Your task to perform on an android device: change keyboard looks Image 0: 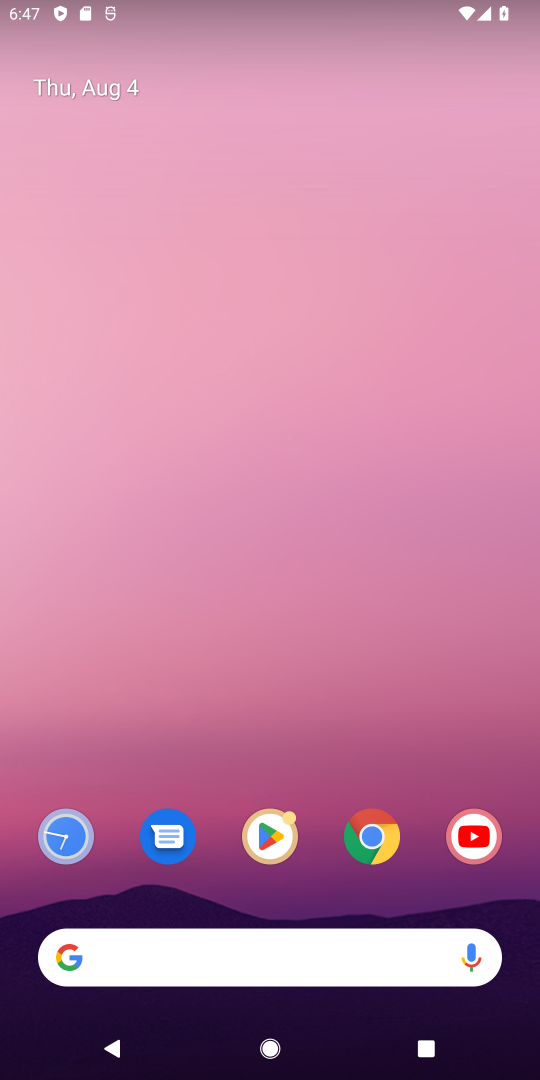
Step 0: drag from (214, 800) to (248, 354)
Your task to perform on an android device: change keyboard looks Image 1: 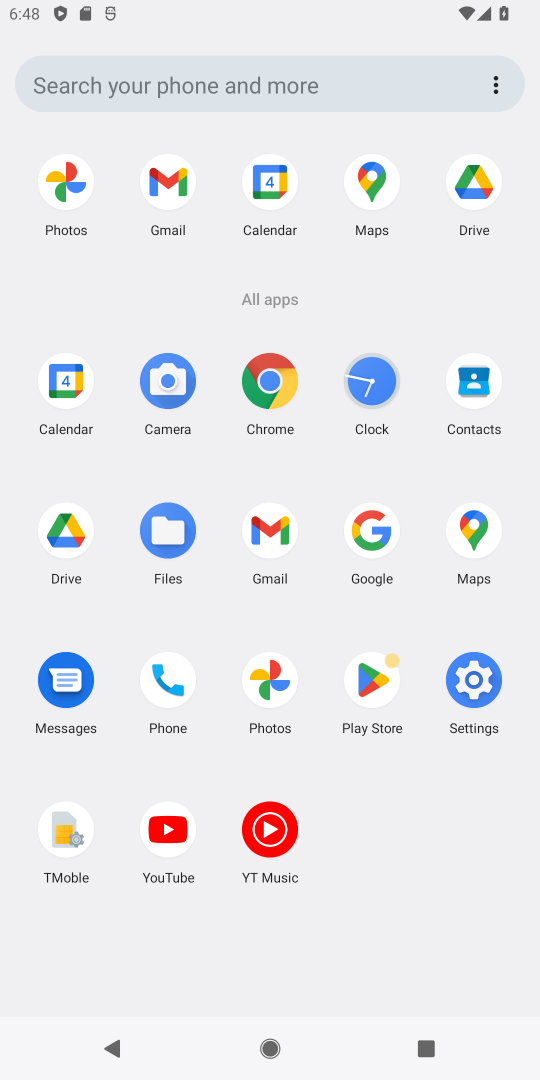
Step 1: click (470, 689)
Your task to perform on an android device: change keyboard looks Image 2: 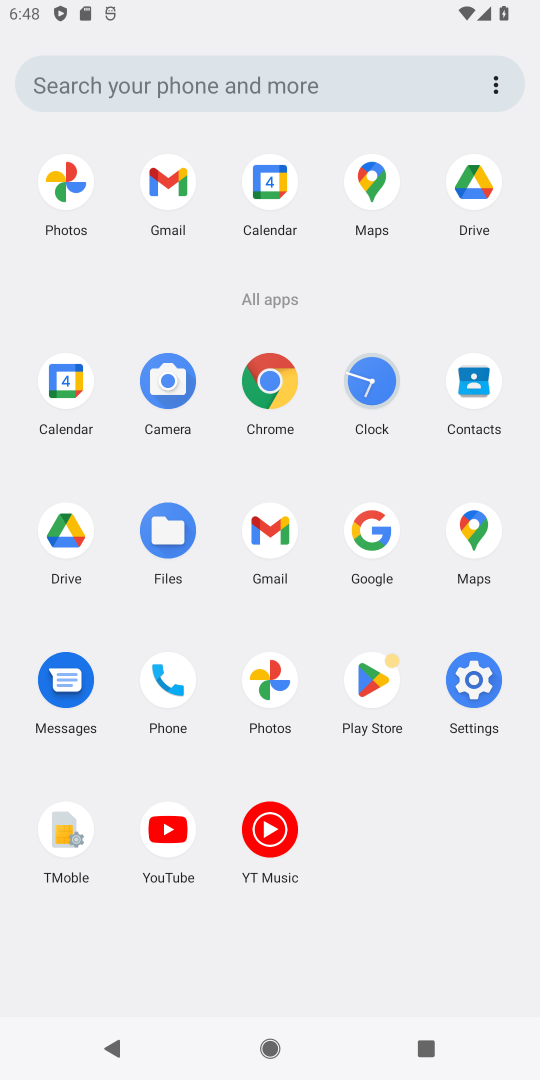
Step 2: click (467, 698)
Your task to perform on an android device: change keyboard looks Image 3: 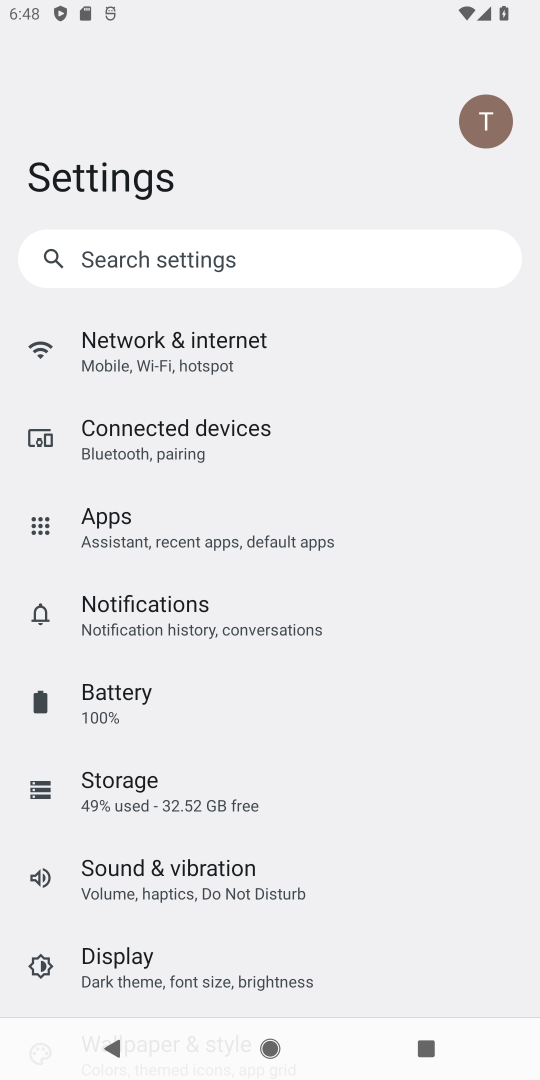
Step 3: drag from (215, 943) to (261, 142)
Your task to perform on an android device: change keyboard looks Image 4: 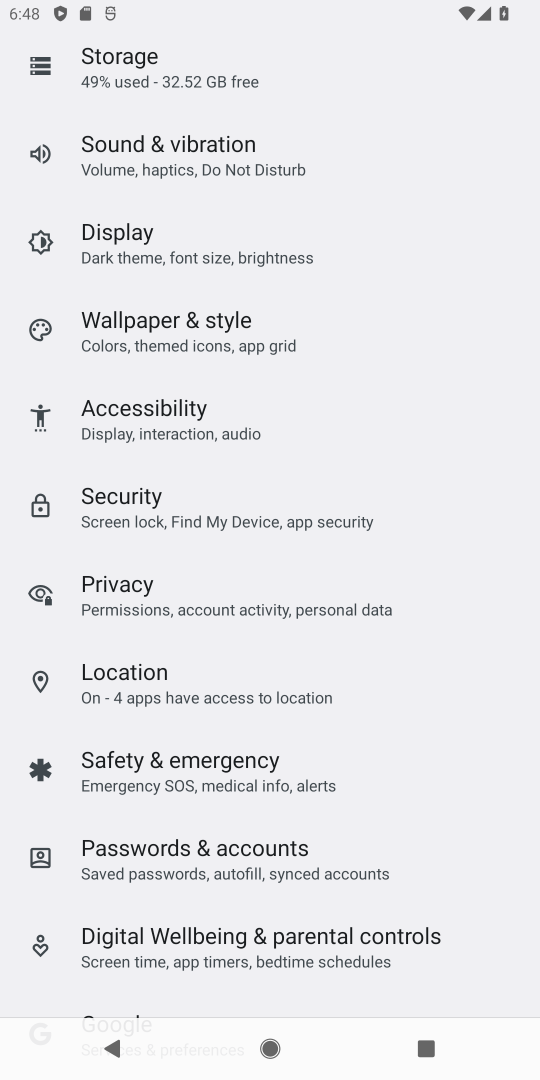
Step 4: drag from (265, 599) to (328, 6)
Your task to perform on an android device: change keyboard looks Image 5: 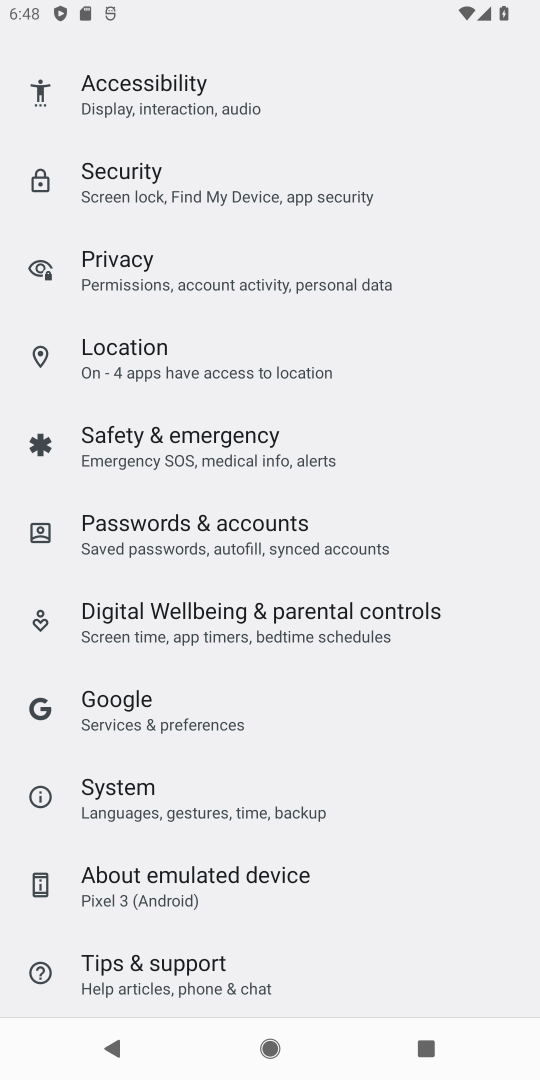
Step 5: drag from (227, 870) to (318, 162)
Your task to perform on an android device: change keyboard looks Image 6: 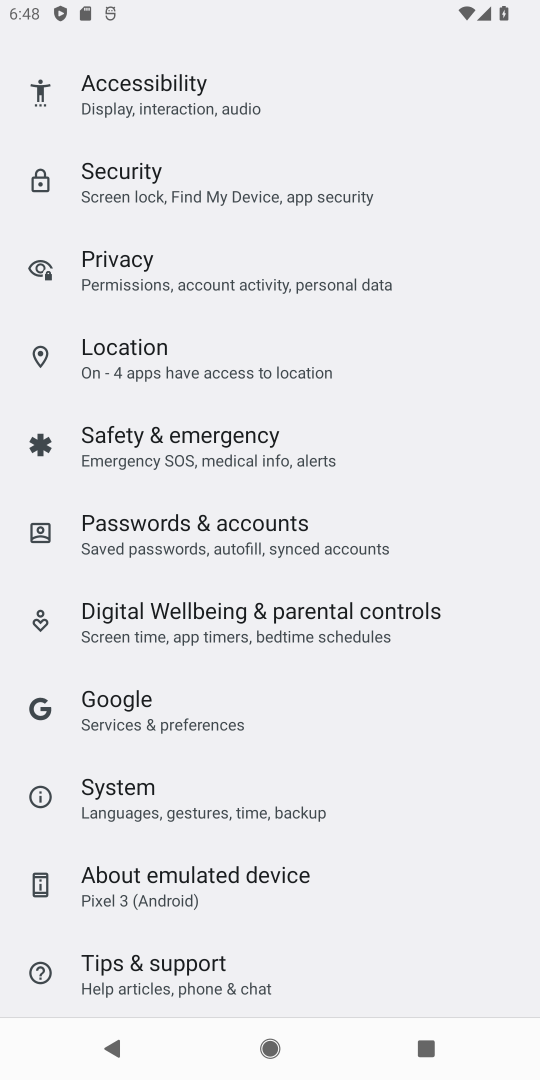
Step 6: click (127, 801)
Your task to perform on an android device: change keyboard looks Image 7: 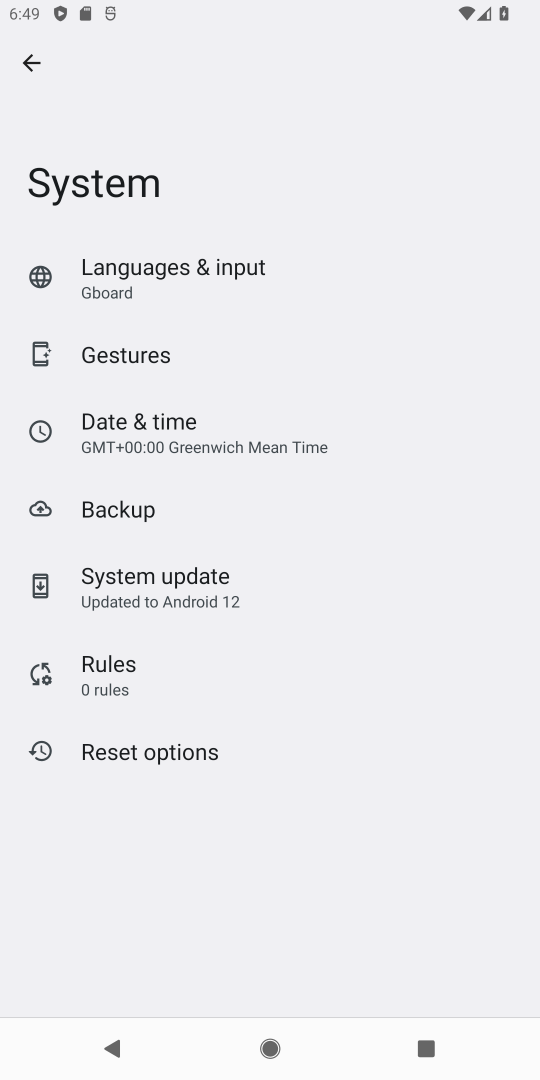
Step 7: click (122, 277)
Your task to perform on an android device: change keyboard looks Image 8: 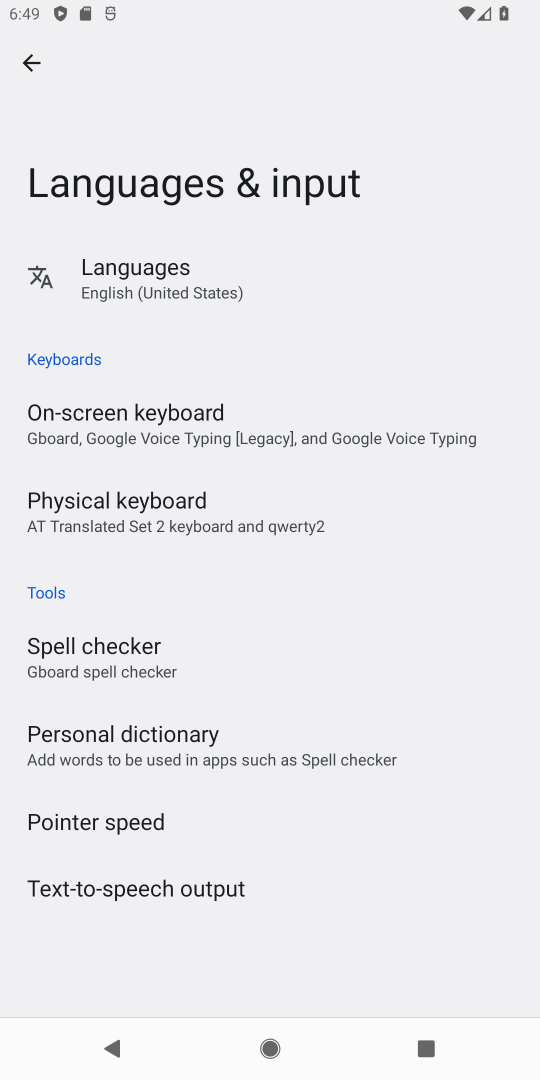
Step 8: click (106, 506)
Your task to perform on an android device: change keyboard looks Image 9: 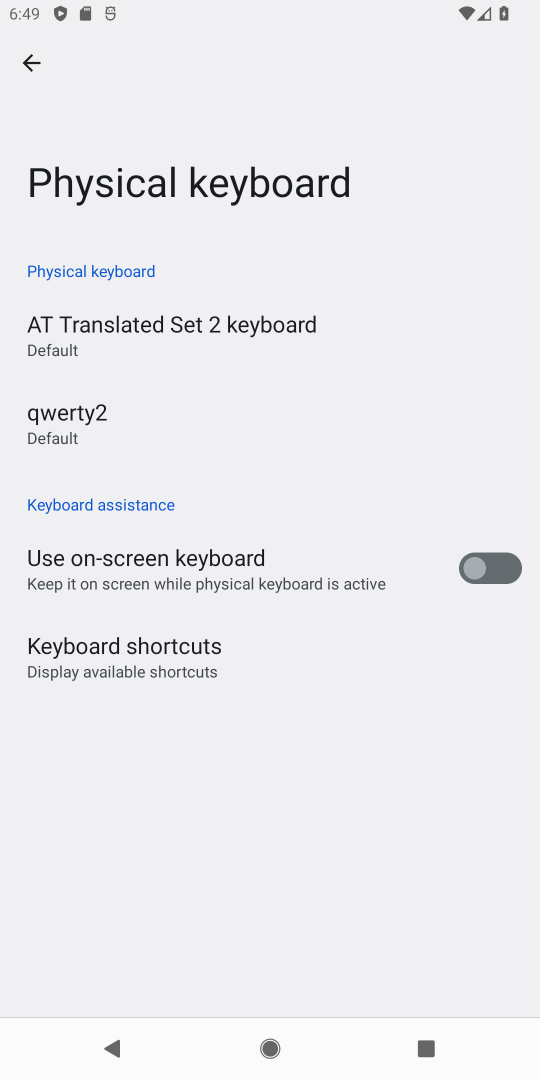
Step 9: click (50, 43)
Your task to perform on an android device: change keyboard looks Image 10: 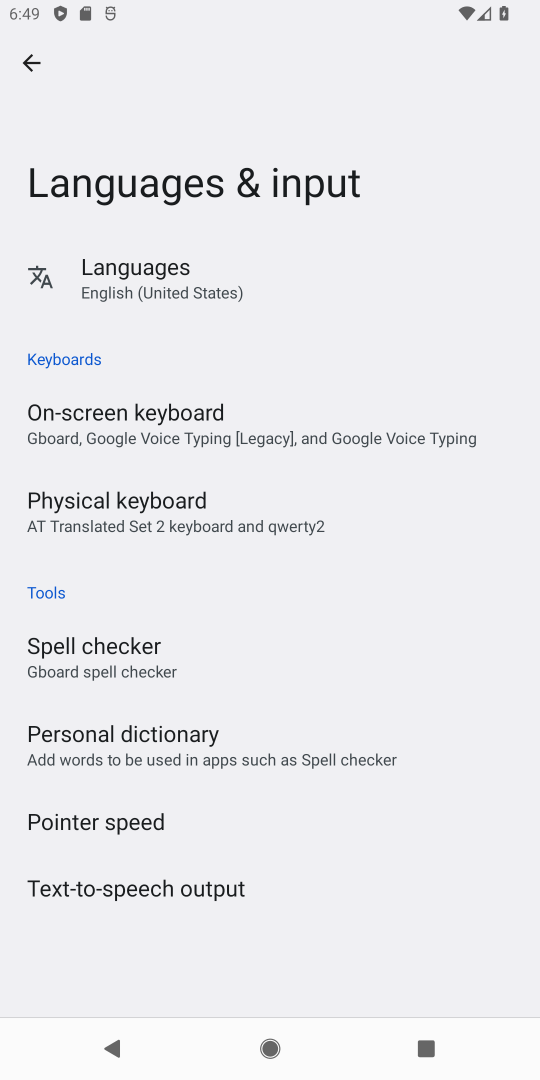
Step 10: click (41, 56)
Your task to perform on an android device: change keyboard looks Image 11: 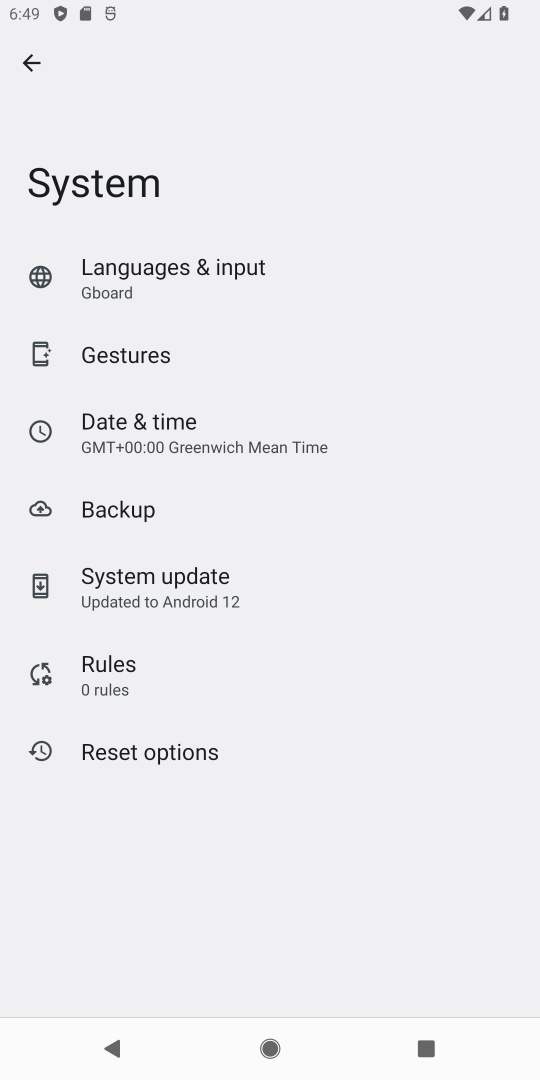
Step 11: click (140, 269)
Your task to perform on an android device: change keyboard looks Image 12: 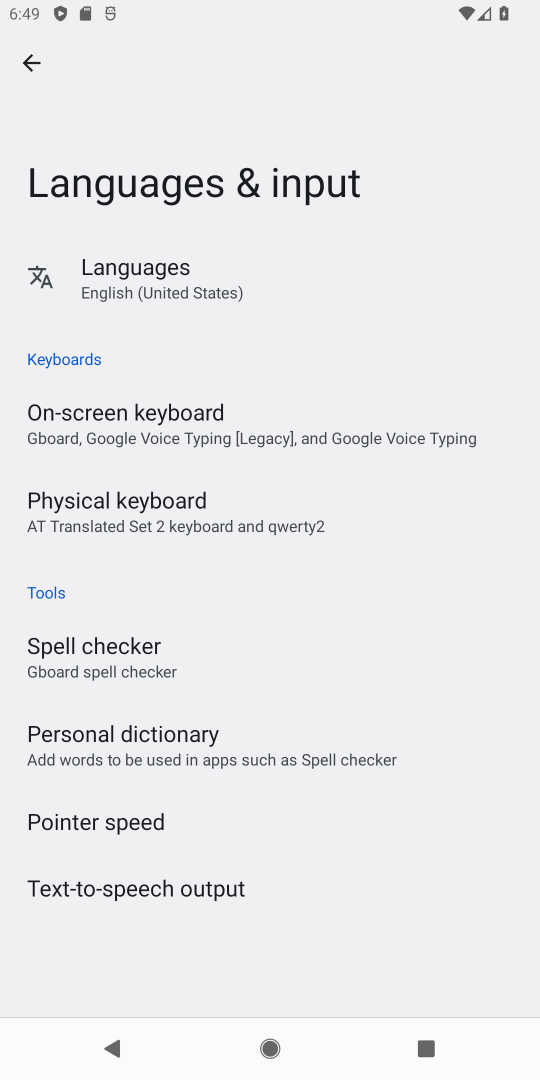
Step 12: click (233, 514)
Your task to perform on an android device: change keyboard looks Image 13: 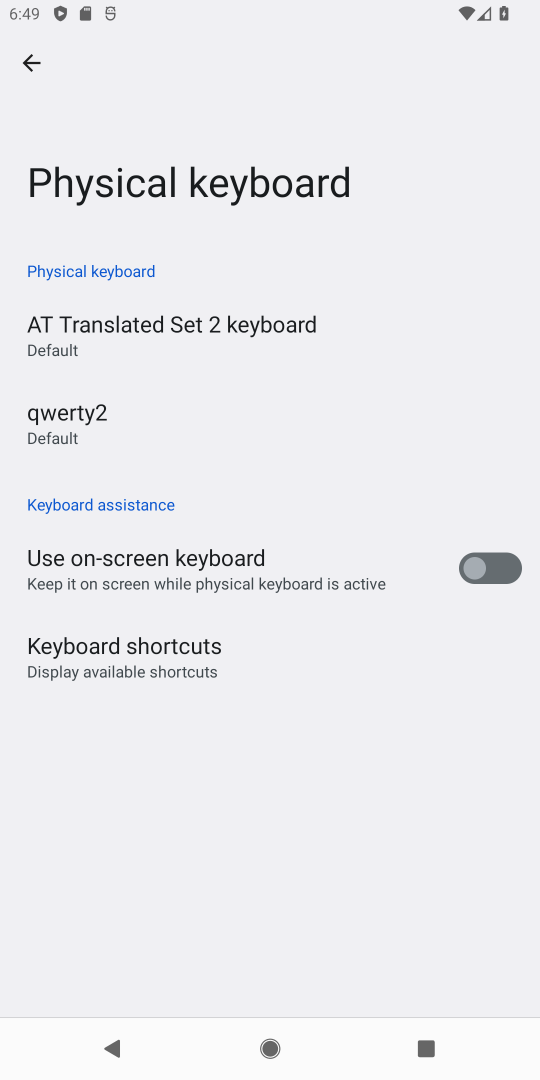
Step 13: click (34, 69)
Your task to perform on an android device: change keyboard looks Image 14: 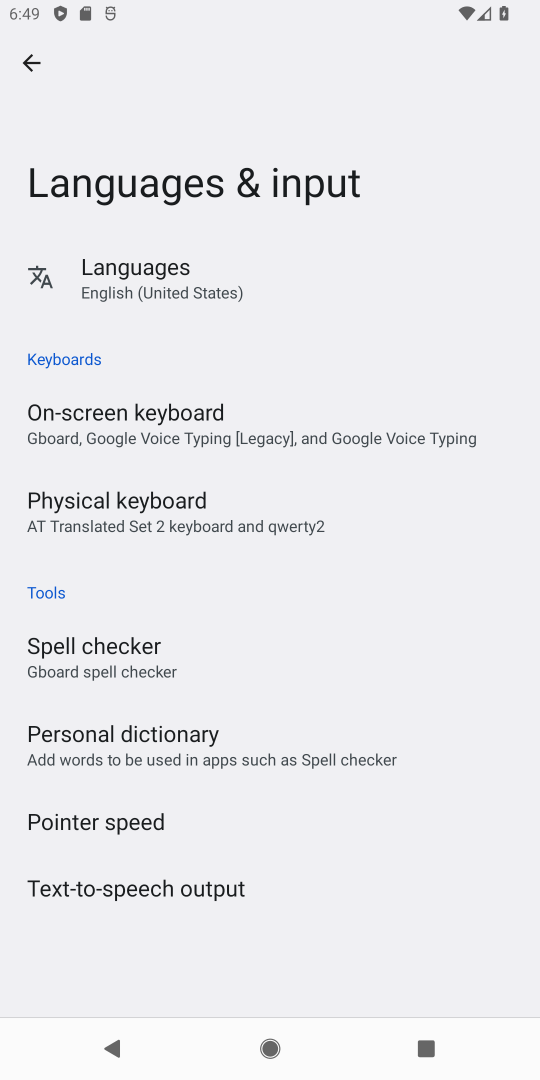
Step 14: click (126, 412)
Your task to perform on an android device: change keyboard looks Image 15: 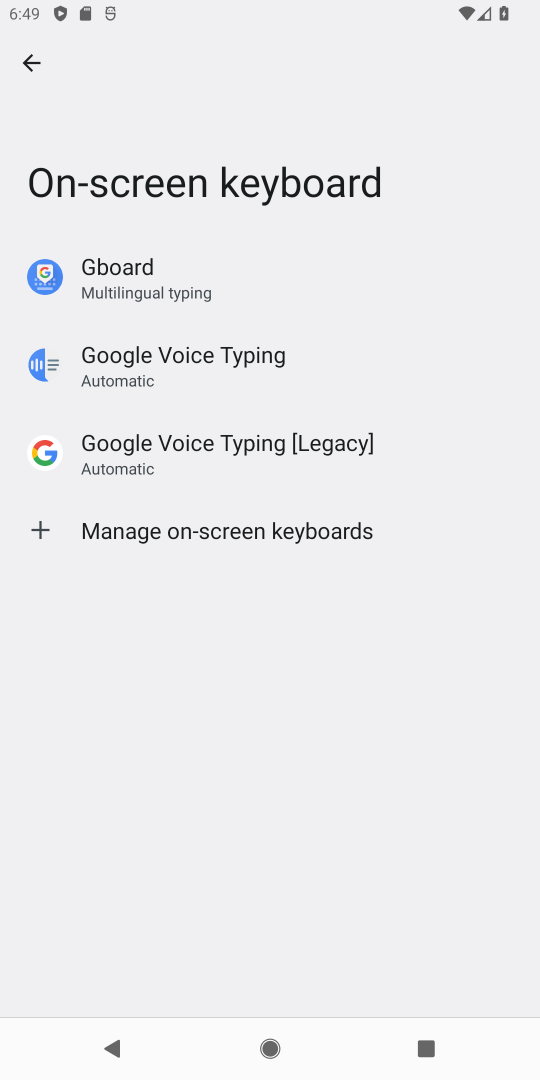
Step 15: click (125, 286)
Your task to perform on an android device: change keyboard looks Image 16: 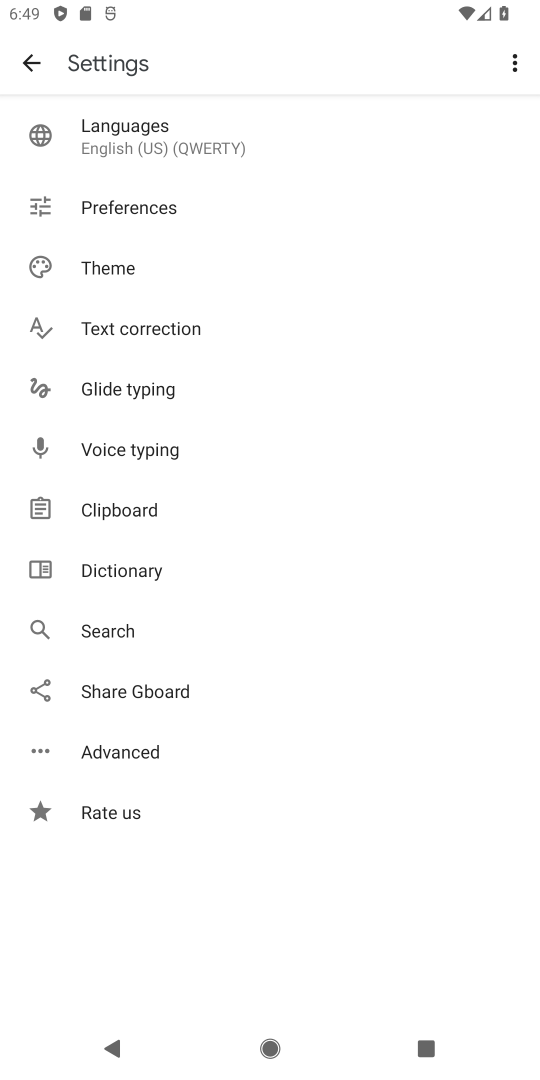
Step 16: click (117, 252)
Your task to perform on an android device: change keyboard looks Image 17: 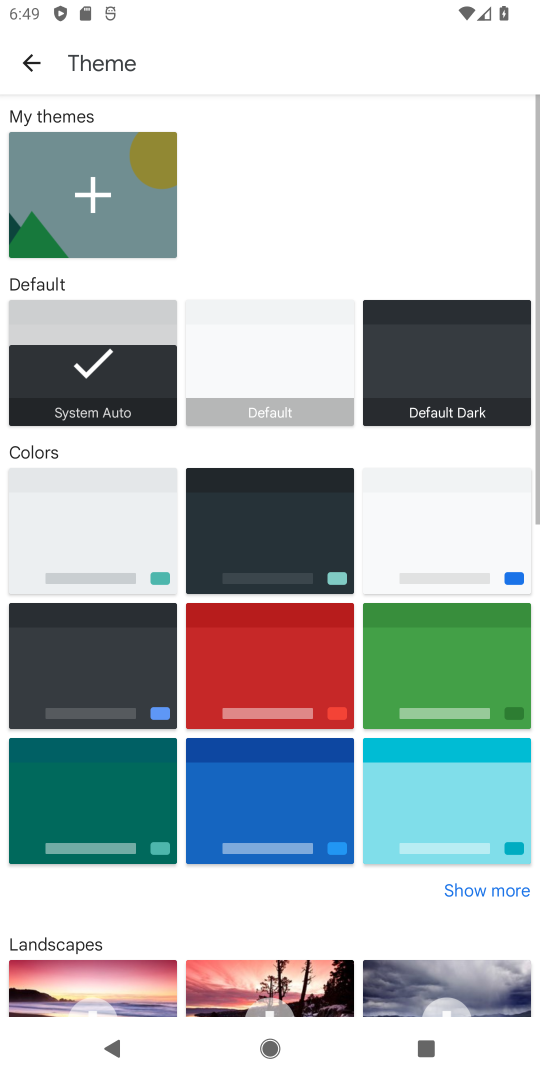
Step 17: click (411, 696)
Your task to perform on an android device: change keyboard looks Image 18: 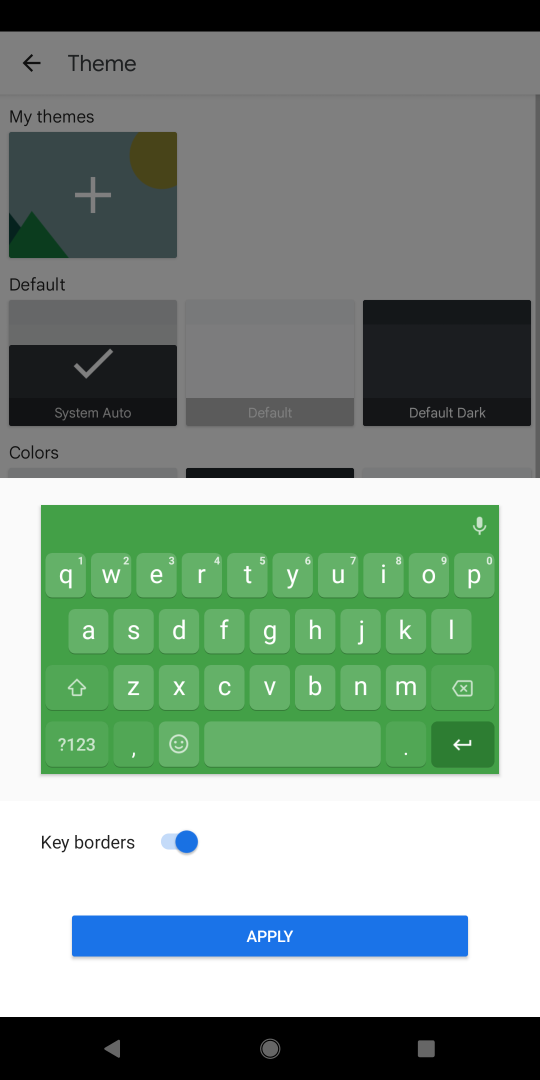
Step 18: click (267, 937)
Your task to perform on an android device: change keyboard looks Image 19: 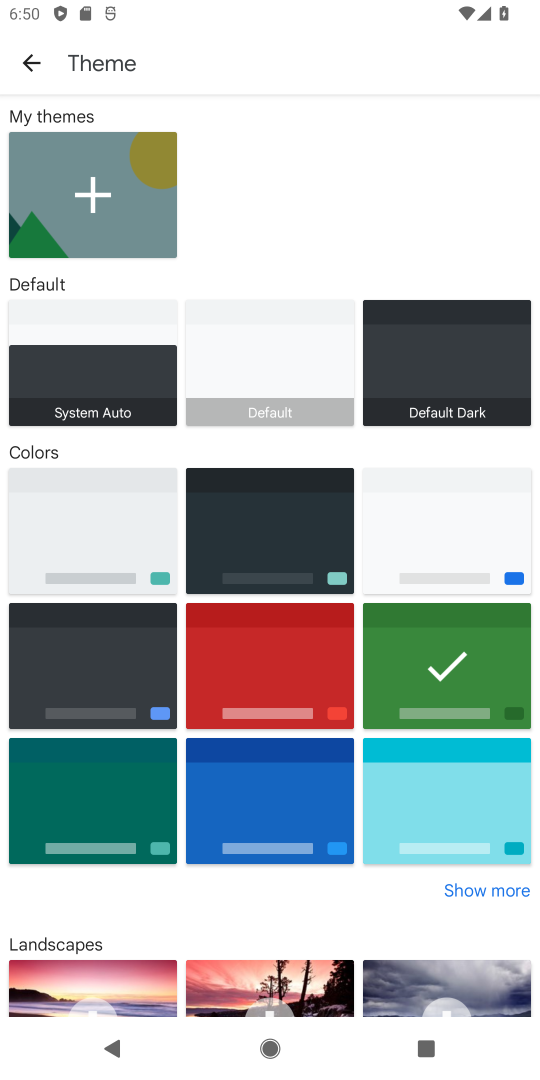
Step 19: task complete